Your task to perform on an android device: Search for macbook pro 13 inch on amazon, select the first entry, and add it to the cart. Image 0: 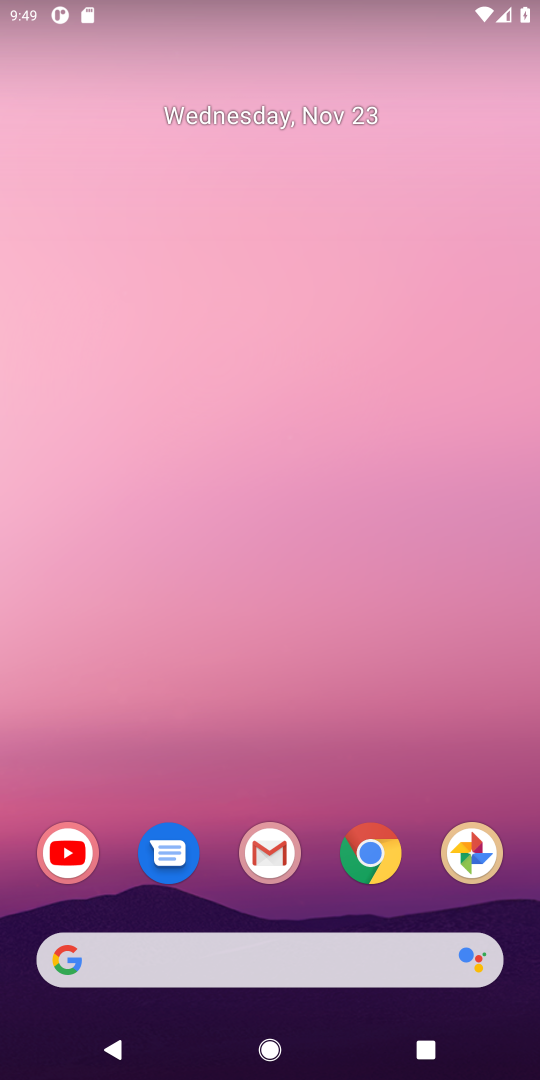
Step 0: click (383, 880)
Your task to perform on an android device: Search for macbook pro 13 inch on amazon, select the first entry, and add it to the cart. Image 1: 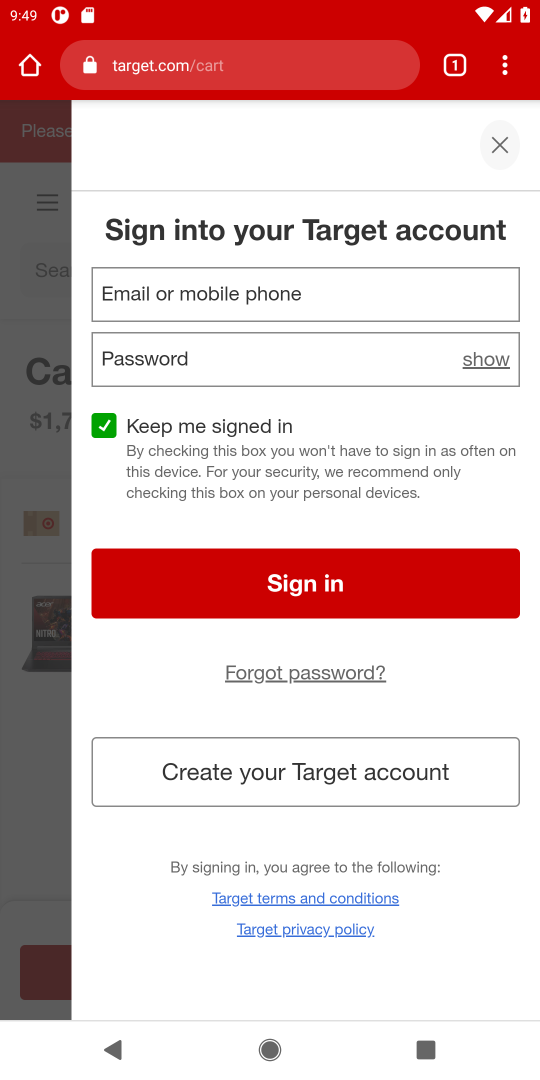
Step 1: click (186, 64)
Your task to perform on an android device: Search for macbook pro 13 inch on amazon, select the first entry, and add it to the cart. Image 2: 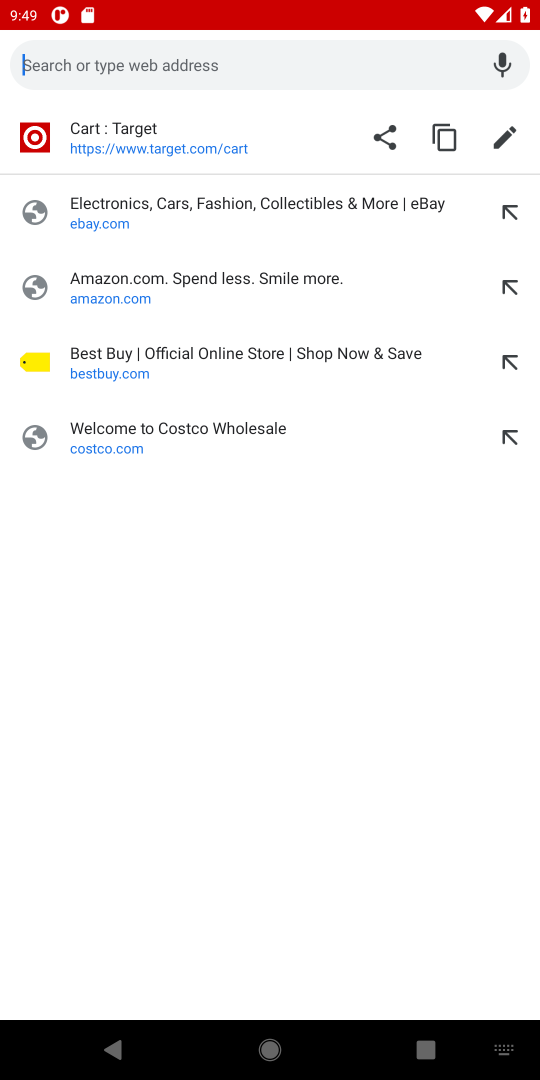
Step 2: click (101, 300)
Your task to perform on an android device: Search for macbook pro 13 inch on amazon, select the first entry, and add it to the cart. Image 3: 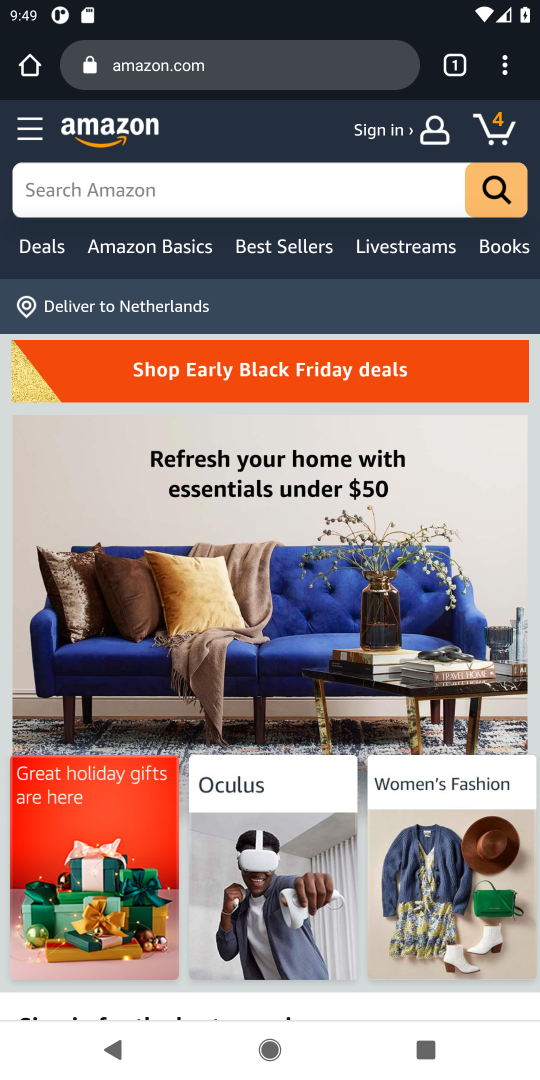
Step 3: click (76, 199)
Your task to perform on an android device: Search for macbook pro 13 inch on amazon, select the first entry, and add it to the cart. Image 4: 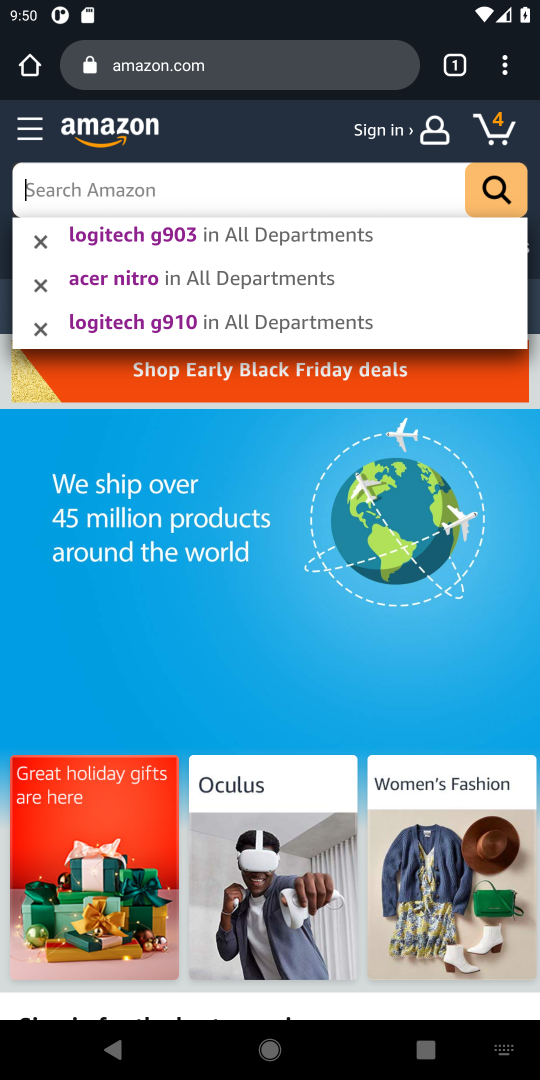
Step 4: type "macbook pro 13 inch"
Your task to perform on an android device: Search for macbook pro 13 inch on amazon, select the first entry, and add it to the cart. Image 5: 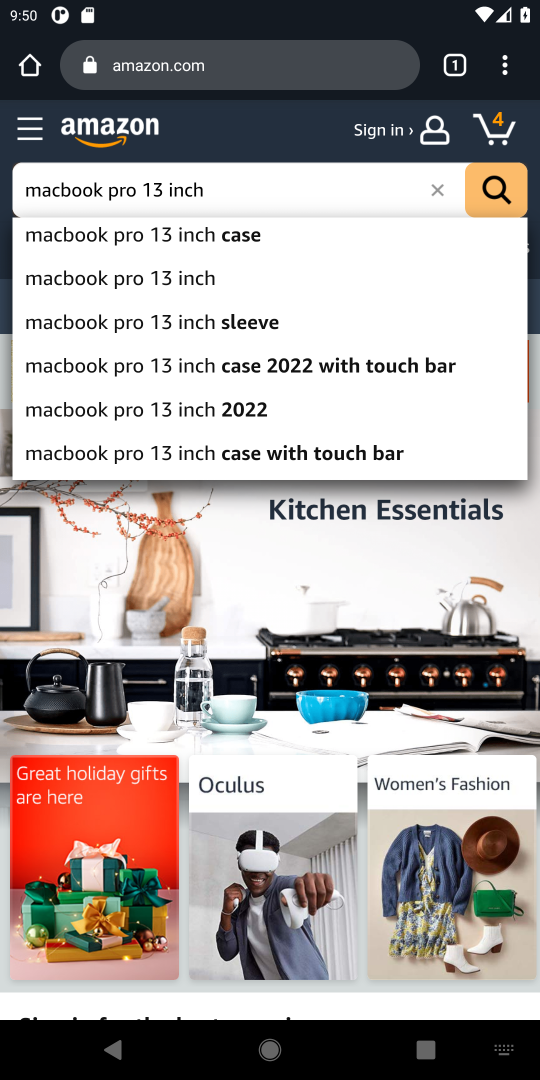
Step 5: click (158, 285)
Your task to perform on an android device: Search for macbook pro 13 inch on amazon, select the first entry, and add it to the cart. Image 6: 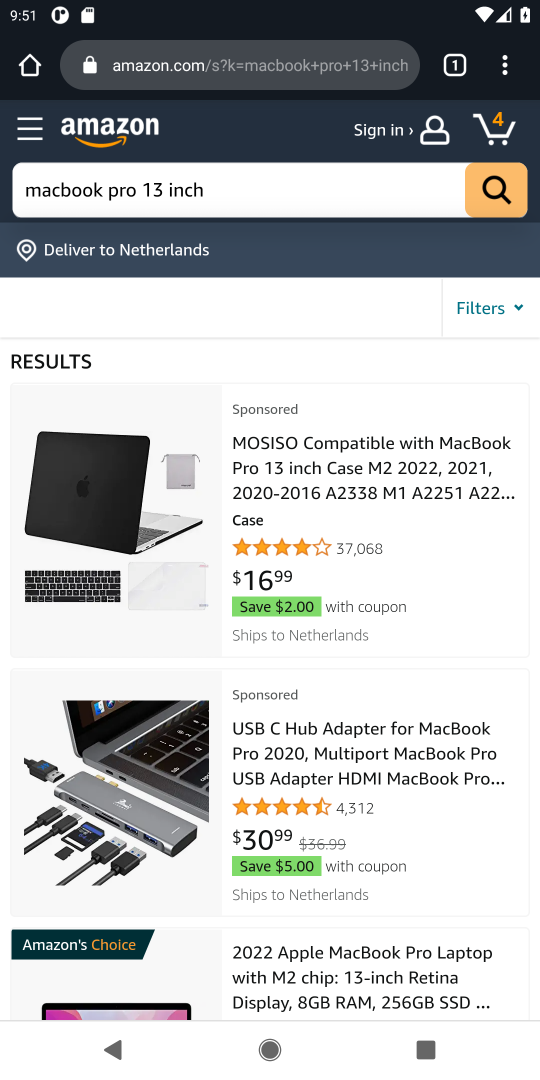
Step 6: click (102, 540)
Your task to perform on an android device: Search for macbook pro 13 inch on amazon, select the first entry, and add it to the cart. Image 7: 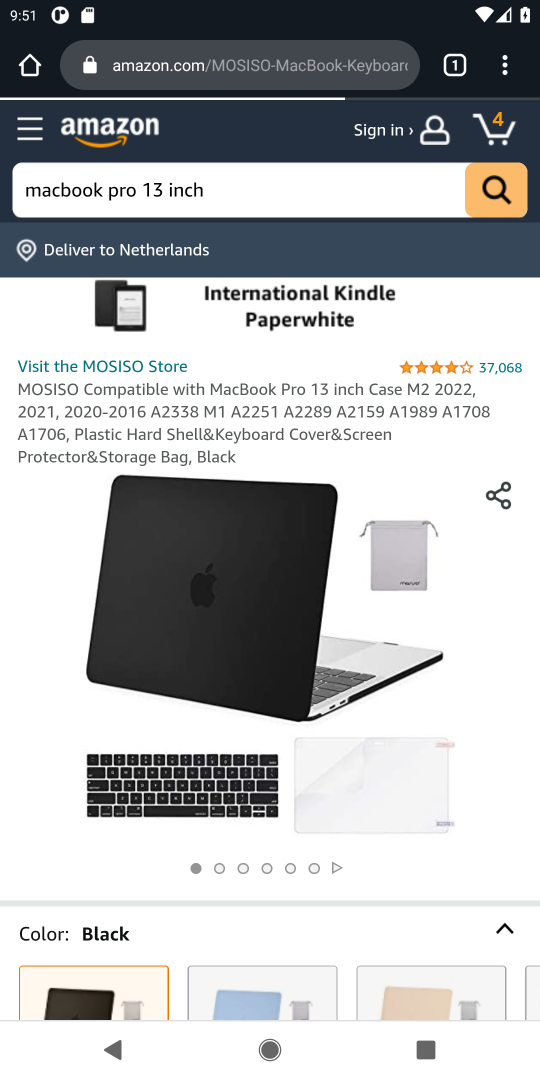
Step 7: drag from (249, 835) to (205, 367)
Your task to perform on an android device: Search for macbook pro 13 inch on amazon, select the first entry, and add it to the cart. Image 8: 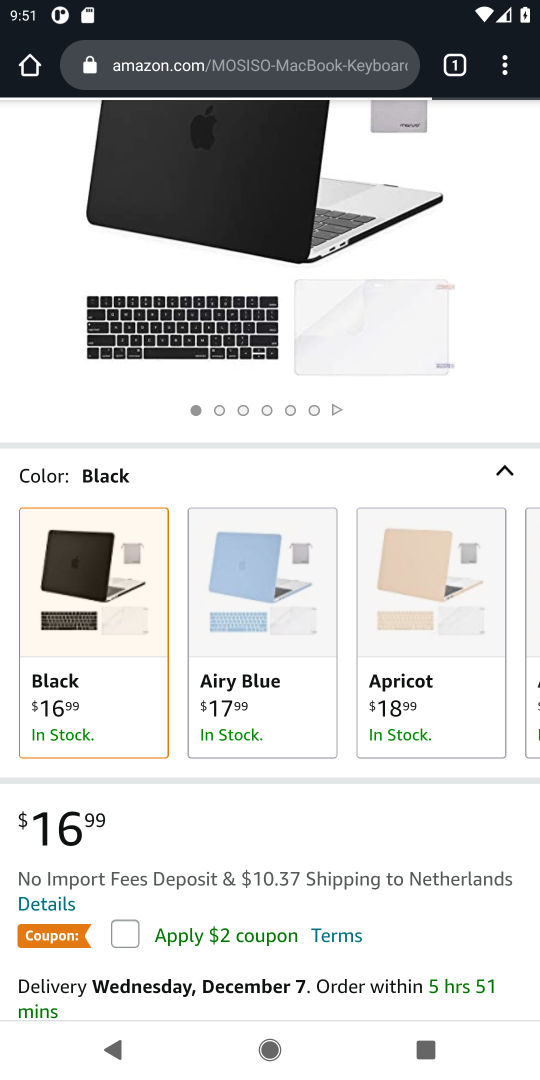
Step 8: drag from (214, 761) to (224, 386)
Your task to perform on an android device: Search for macbook pro 13 inch on amazon, select the first entry, and add it to the cart. Image 9: 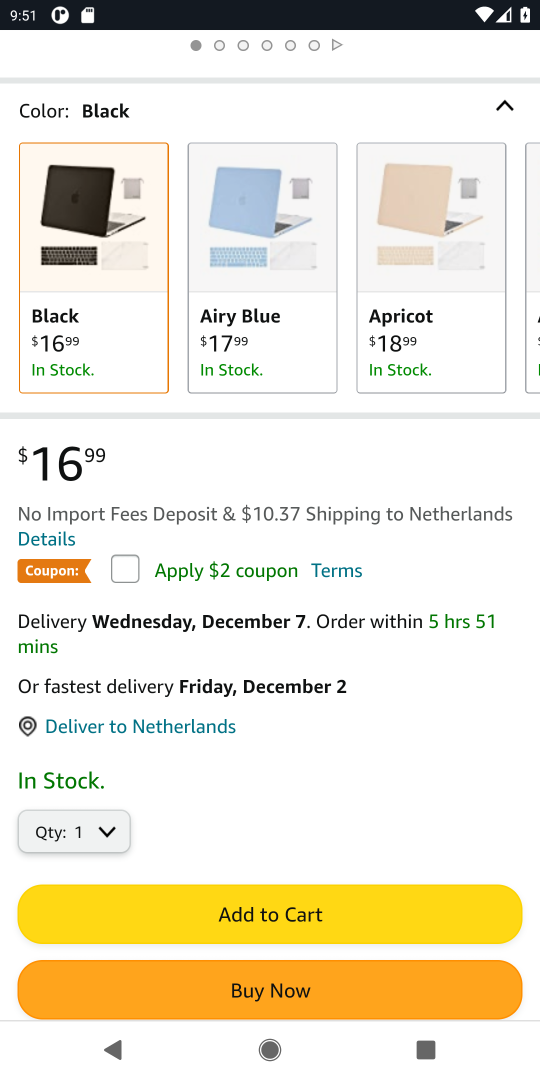
Step 9: click (262, 907)
Your task to perform on an android device: Search for macbook pro 13 inch on amazon, select the first entry, and add it to the cart. Image 10: 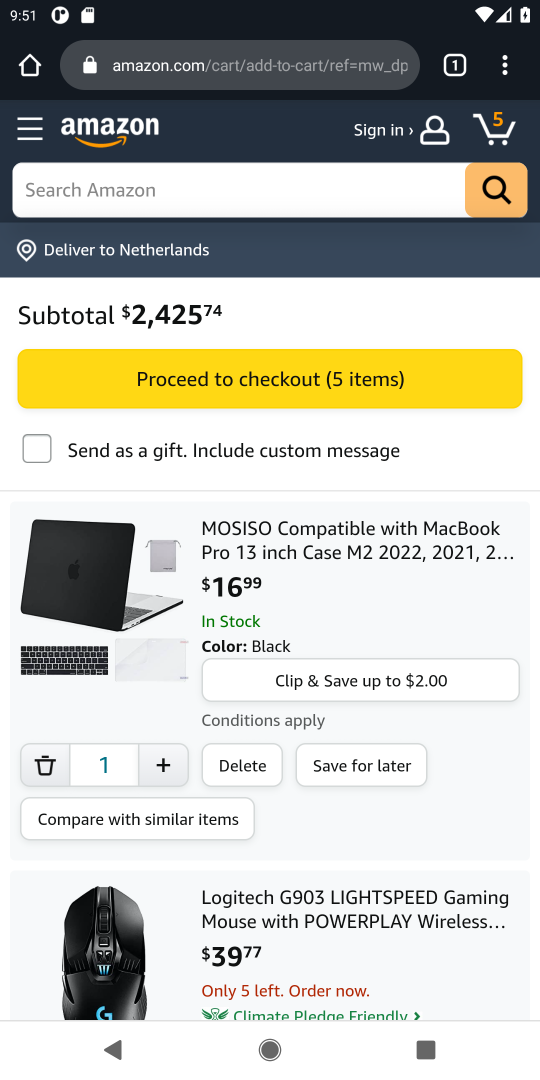
Step 10: task complete